Your task to perform on an android device: What's on my calendar tomorrow? Image 0: 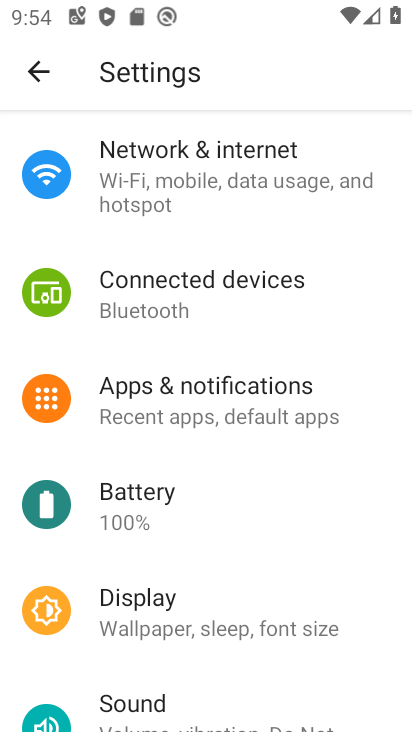
Step 0: press home button
Your task to perform on an android device: What's on my calendar tomorrow? Image 1: 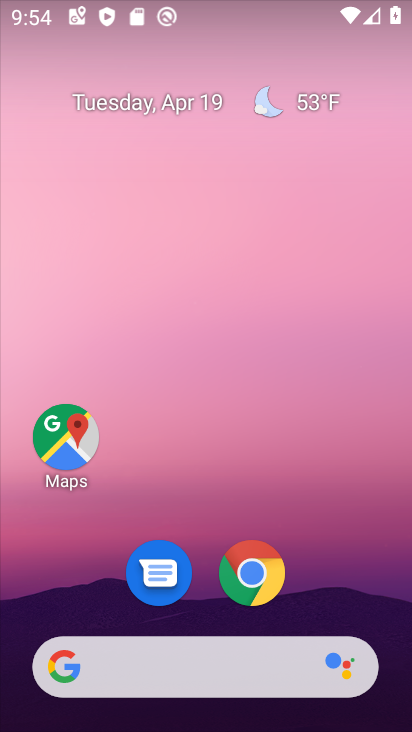
Step 1: drag from (205, 571) to (205, 164)
Your task to perform on an android device: What's on my calendar tomorrow? Image 2: 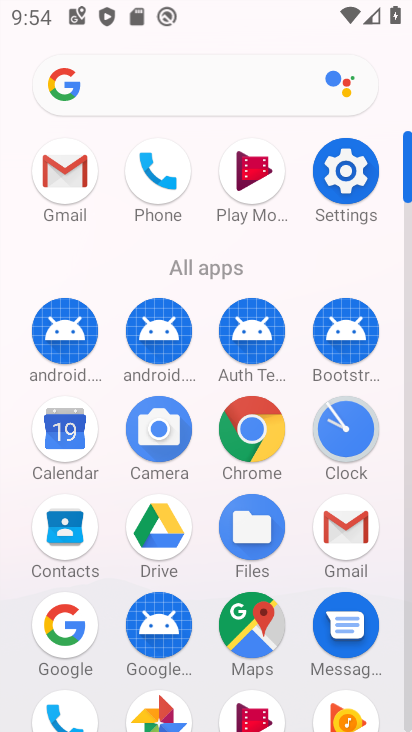
Step 2: click (66, 442)
Your task to perform on an android device: What's on my calendar tomorrow? Image 3: 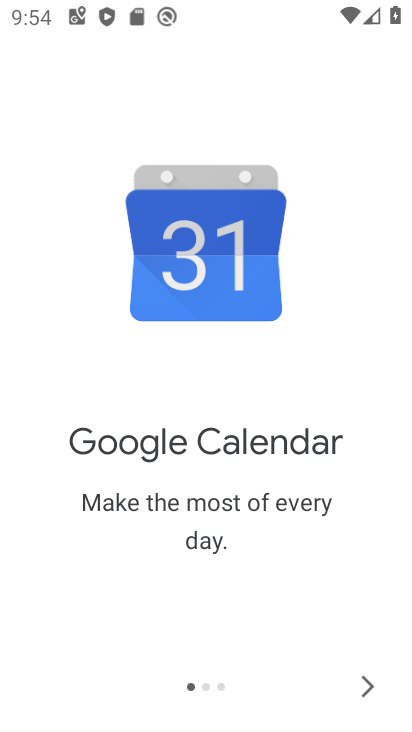
Step 3: click (361, 676)
Your task to perform on an android device: What's on my calendar tomorrow? Image 4: 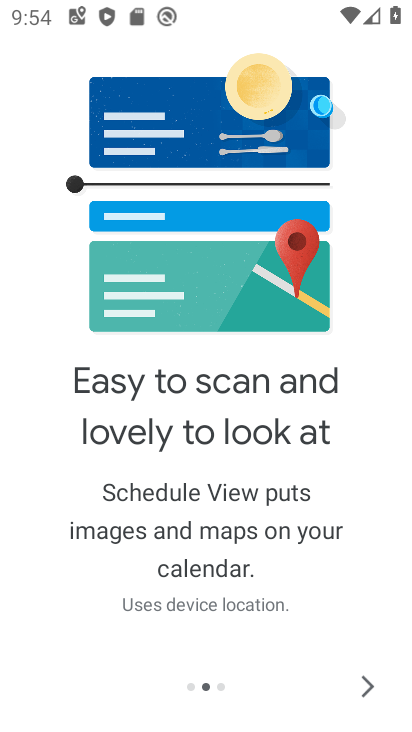
Step 4: click (361, 676)
Your task to perform on an android device: What's on my calendar tomorrow? Image 5: 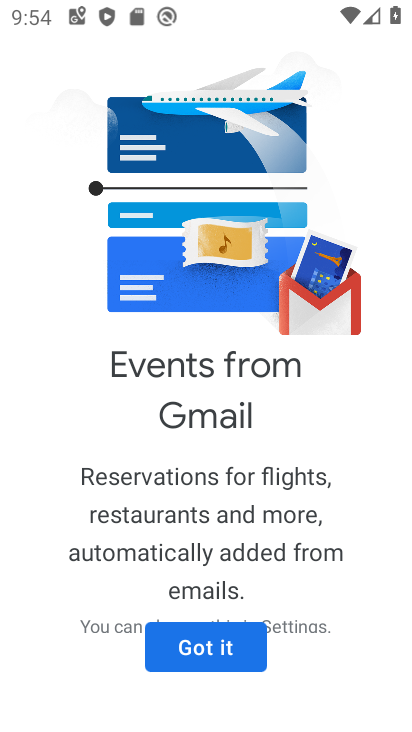
Step 5: click (219, 640)
Your task to perform on an android device: What's on my calendar tomorrow? Image 6: 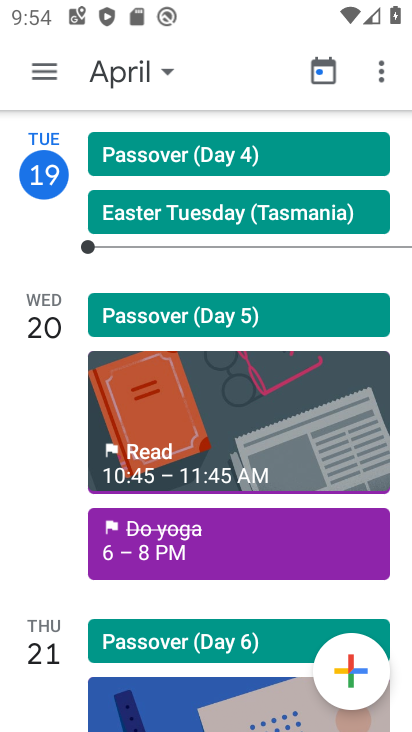
Step 6: click (154, 67)
Your task to perform on an android device: What's on my calendar tomorrow? Image 7: 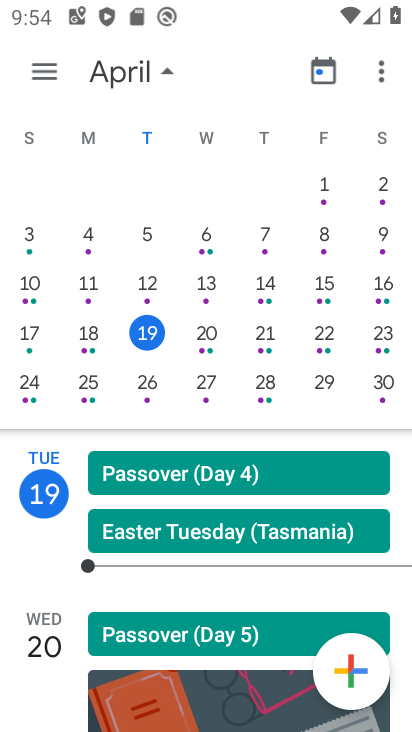
Step 7: click (208, 318)
Your task to perform on an android device: What's on my calendar tomorrow? Image 8: 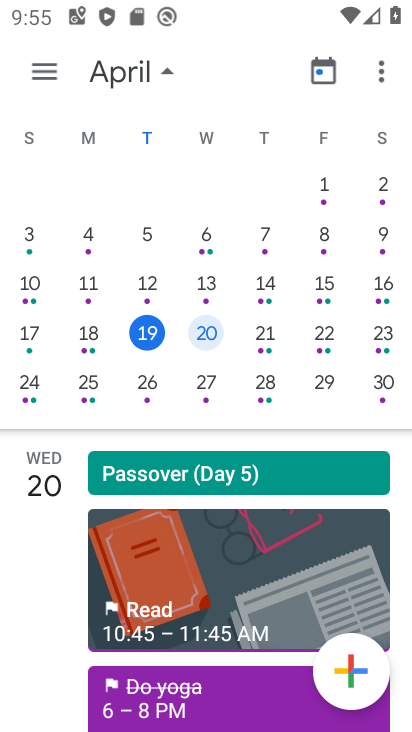
Step 8: task complete